Your task to perform on an android device: What's the weather today? Image 0: 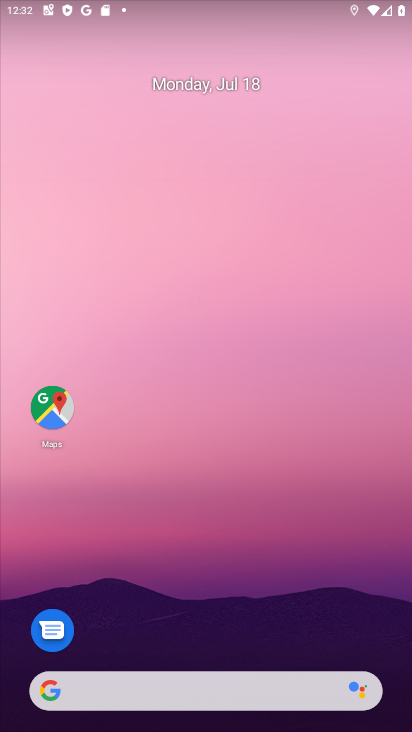
Step 0: drag from (325, 680) to (269, 0)
Your task to perform on an android device: What's the weather today? Image 1: 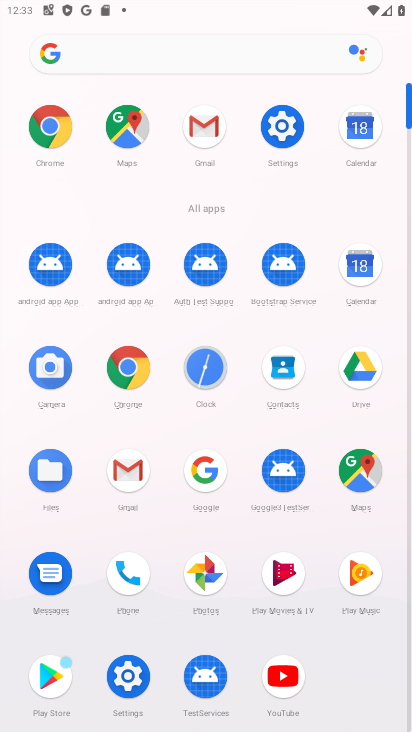
Step 1: click (136, 363)
Your task to perform on an android device: What's the weather today? Image 2: 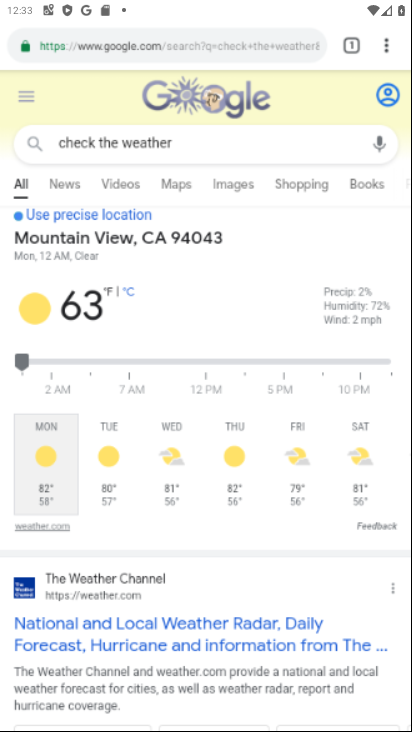
Step 2: click (179, 31)
Your task to perform on an android device: What's the weather today? Image 3: 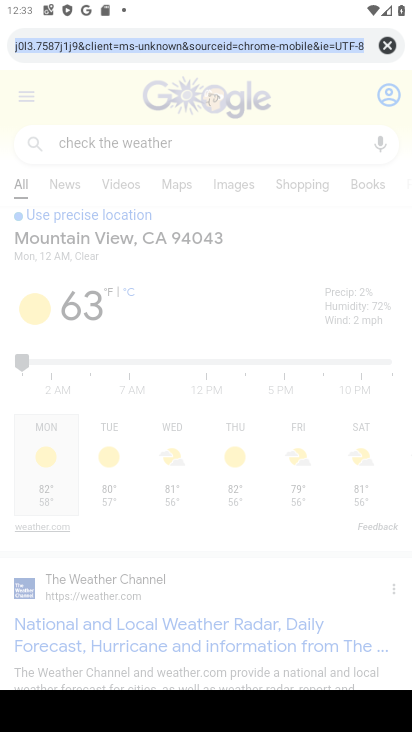
Step 3: type "weather today"
Your task to perform on an android device: What's the weather today? Image 4: 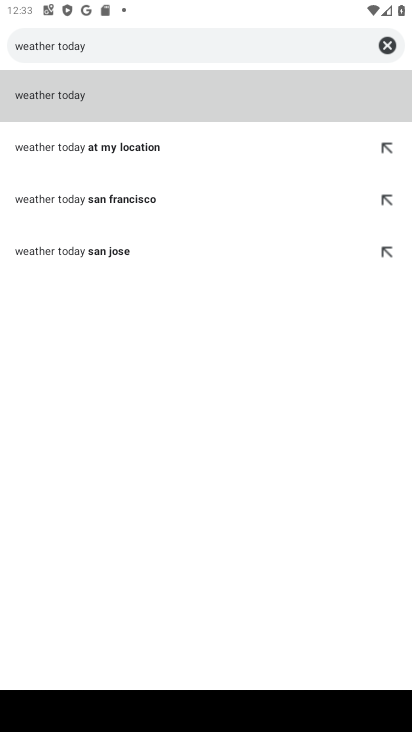
Step 4: click (192, 87)
Your task to perform on an android device: What's the weather today? Image 5: 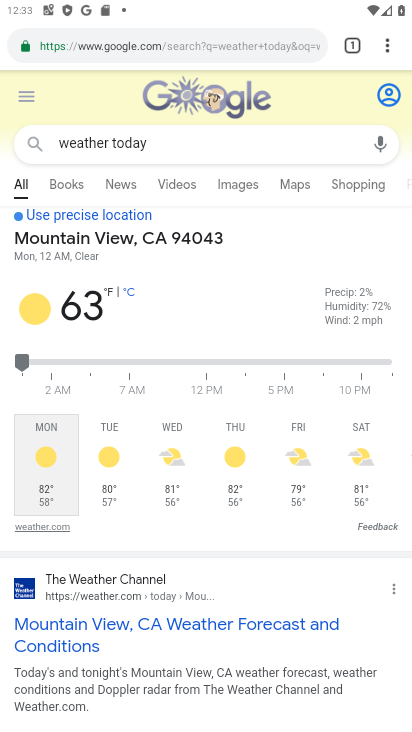
Step 5: task complete